Your task to perform on an android device: Go to Reddit.com Image 0: 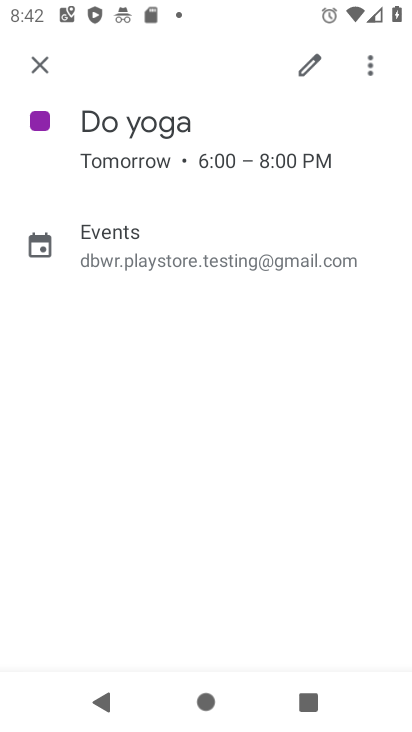
Step 0: press home button
Your task to perform on an android device: Go to Reddit.com Image 1: 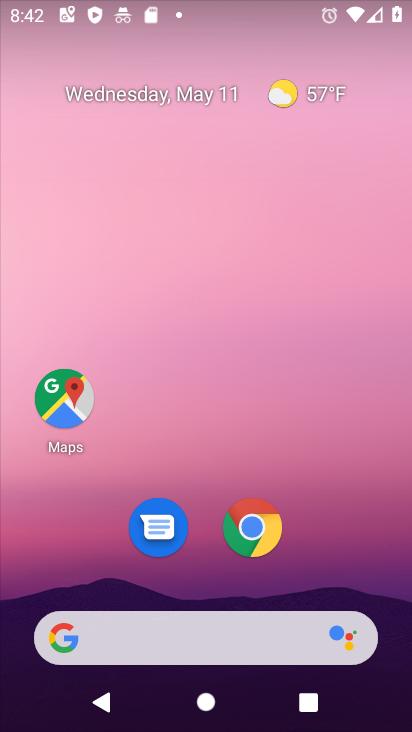
Step 1: click (253, 526)
Your task to perform on an android device: Go to Reddit.com Image 2: 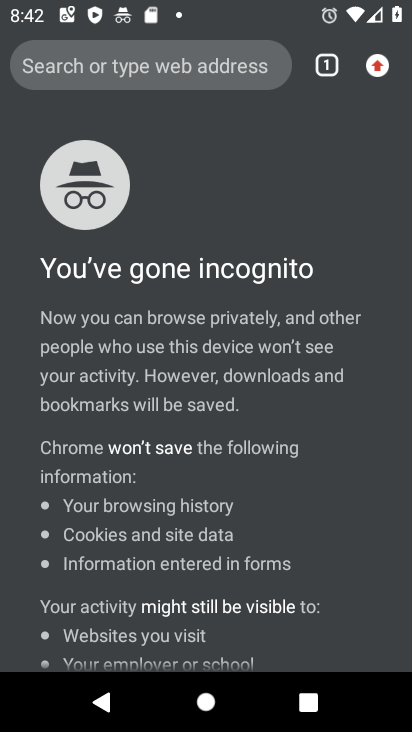
Step 2: click (87, 68)
Your task to perform on an android device: Go to Reddit.com Image 3: 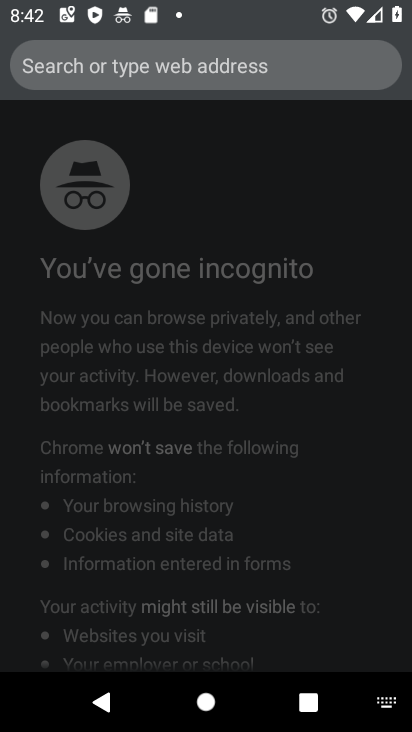
Step 3: type "reddit.com"
Your task to perform on an android device: Go to Reddit.com Image 4: 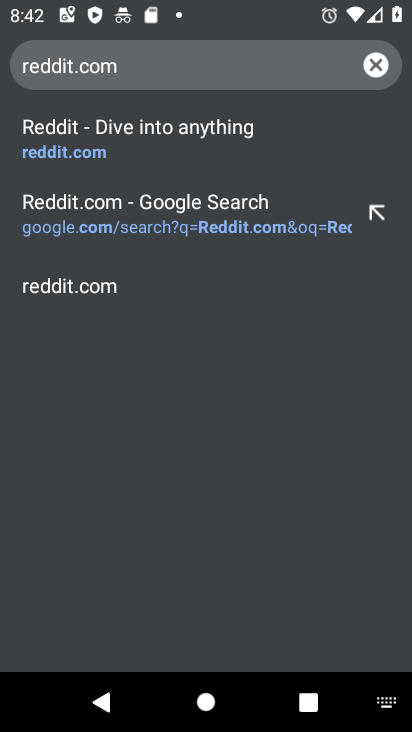
Step 4: drag from (53, 134) to (52, 210)
Your task to perform on an android device: Go to Reddit.com Image 5: 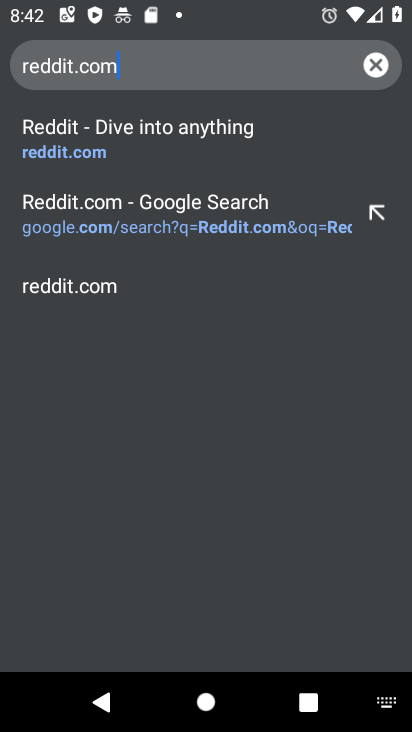
Step 5: click (77, 225)
Your task to perform on an android device: Go to Reddit.com Image 6: 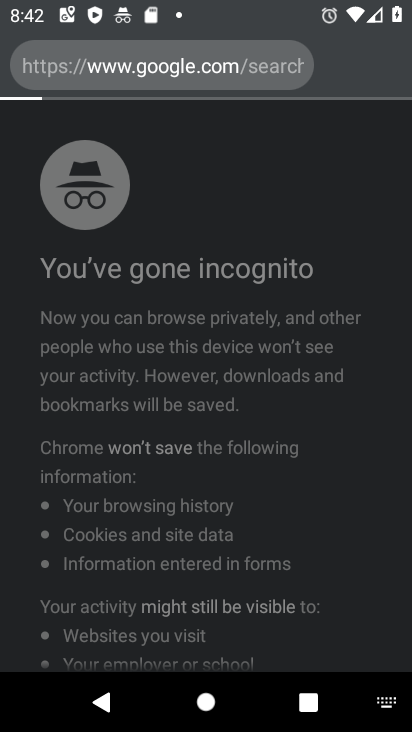
Step 6: click (58, 281)
Your task to perform on an android device: Go to Reddit.com Image 7: 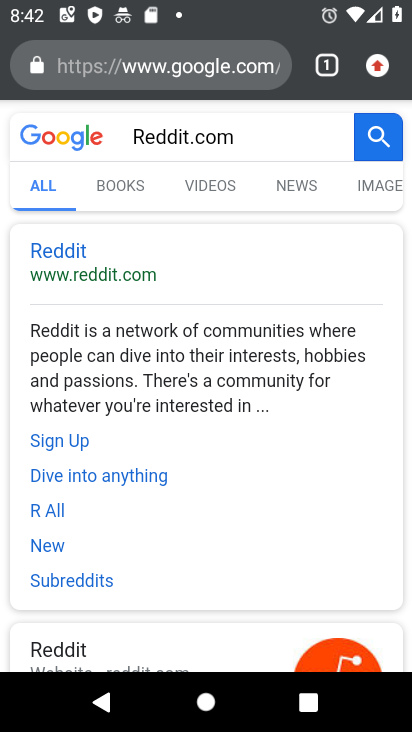
Step 7: click (63, 262)
Your task to perform on an android device: Go to Reddit.com Image 8: 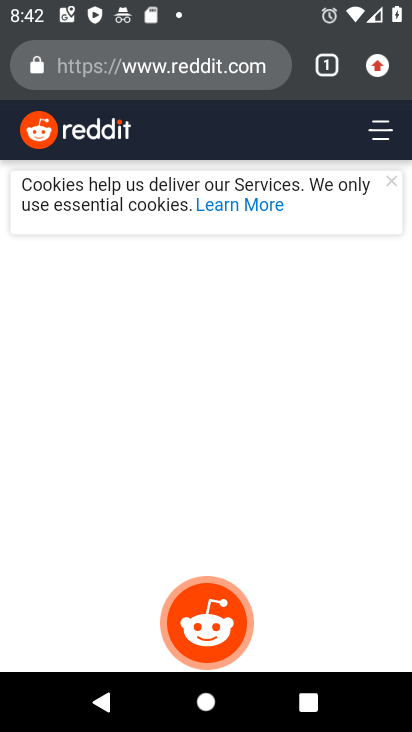
Step 8: task complete